Your task to perform on an android device: Show me popular games on the Play Store Image 0: 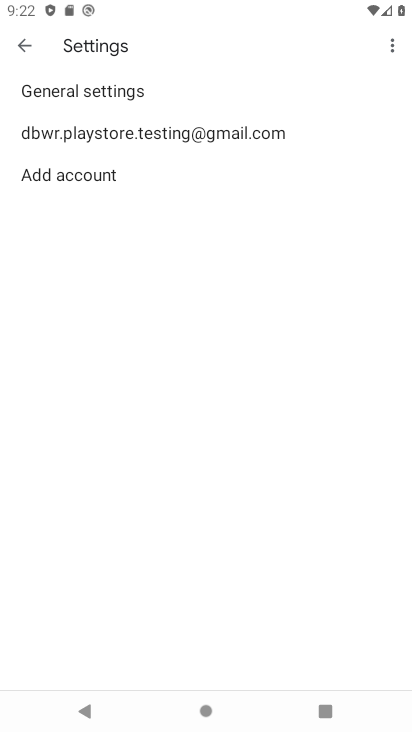
Step 0: press home button
Your task to perform on an android device: Show me popular games on the Play Store Image 1: 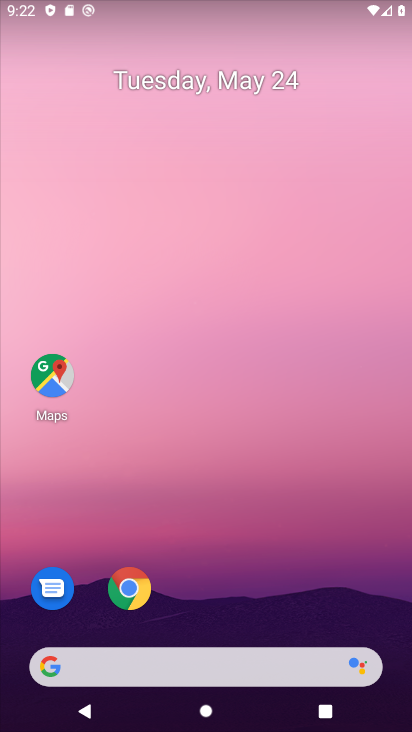
Step 1: drag from (221, 609) to (290, 51)
Your task to perform on an android device: Show me popular games on the Play Store Image 2: 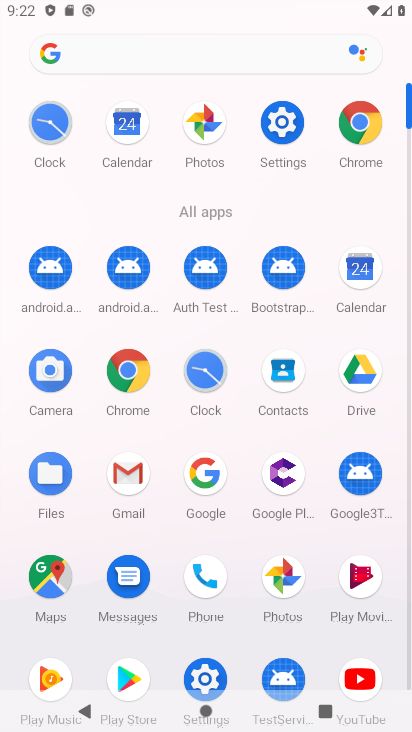
Step 2: click (130, 675)
Your task to perform on an android device: Show me popular games on the Play Store Image 3: 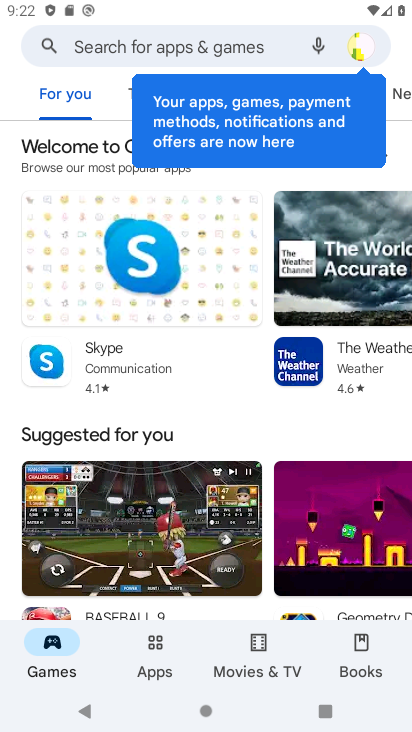
Step 3: drag from (238, 487) to (284, 143)
Your task to perform on an android device: Show me popular games on the Play Store Image 4: 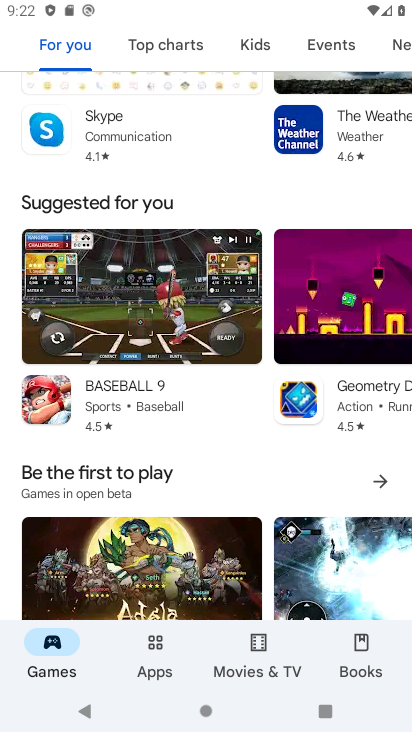
Step 4: drag from (214, 565) to (286, 35)
Your task to perform on an android device: Show me popular games on the Play Store Image 5: 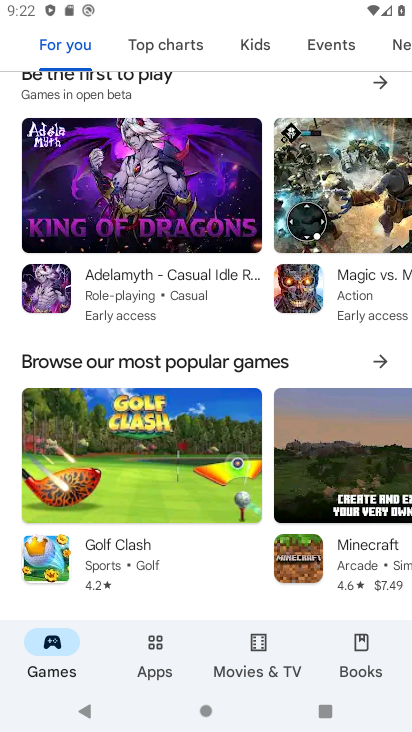
Step 5: drag from (196, 576) to (244, 316)
Your task to perform on an android device: Show me popular games on the Play Store Image 6: 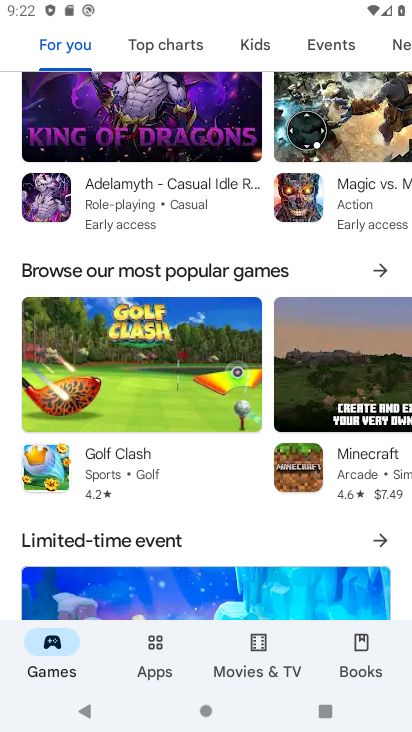
Step 6: click (383, 275)
Your task to perform on an android device: Show me popular games on the Play Store Image 7: 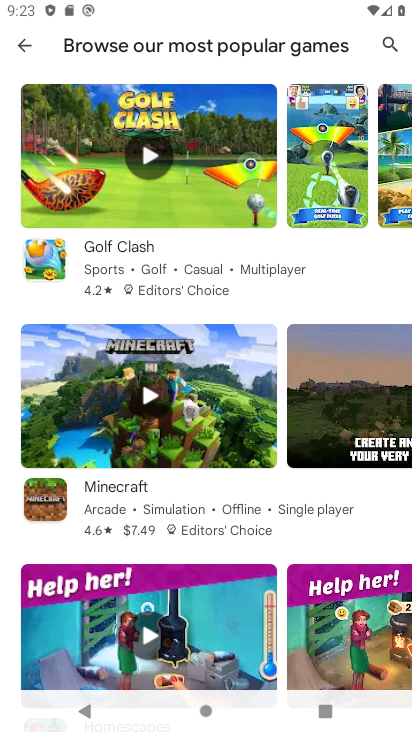
Step 7: task complete